Your task to perform on an android device: delete a single message in the gmail app Image 0: 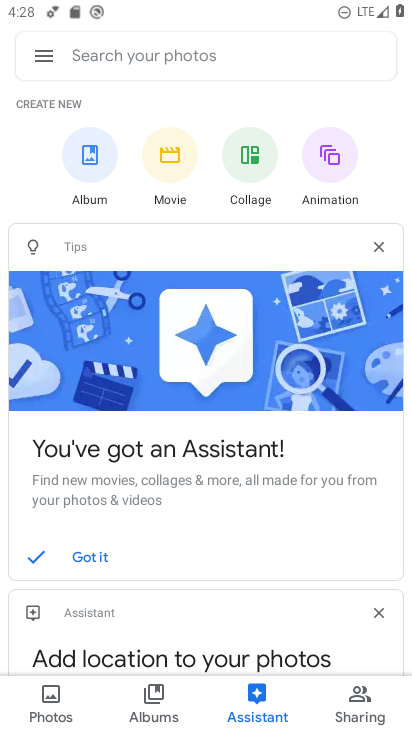
Step 0: press home button
Your task to perform on an android device: delete a single message in the gmail app Image 1: 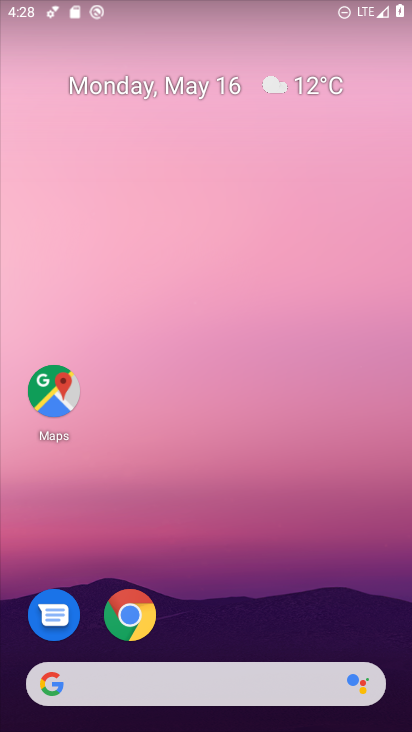
Step 1: drag from (172, 712) to (171, 231)
Your task to perform on an android device: delete a single message in the gmail app Image 2: 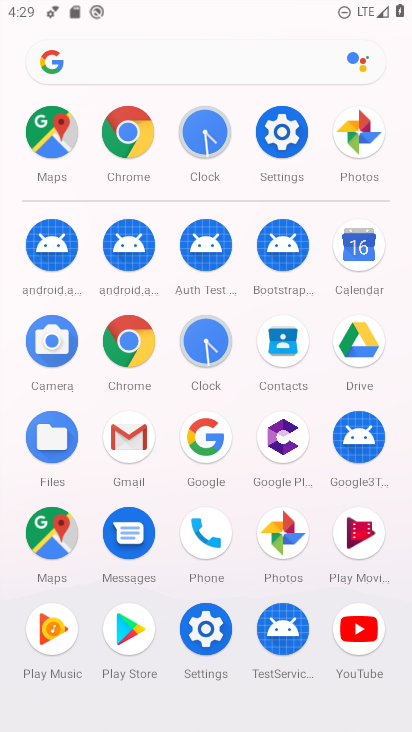
Step 2: click (123, 439)
Your task to perform on an android device: delete a single message in the gmail app Image 3: 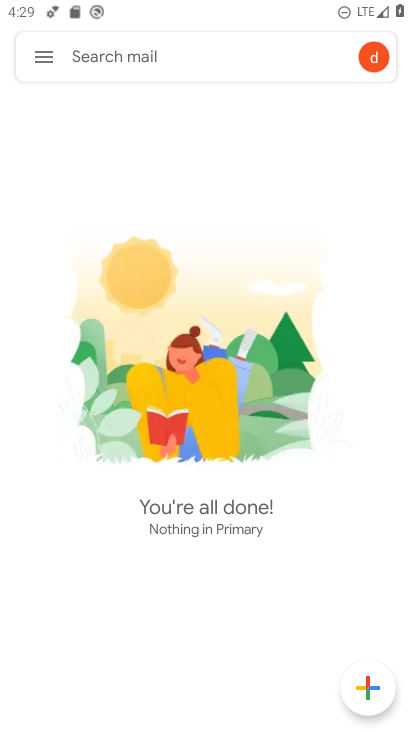
Step 3: task complete